Your task to perform on an android device: What's the news in Jamaica? Image 0: 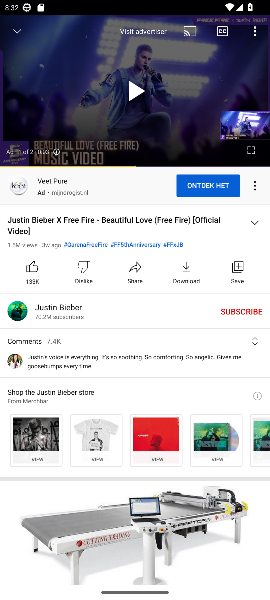
Step 0: press home button
Your task to perform on an android device: What's the news in Jamaica? Image 1: 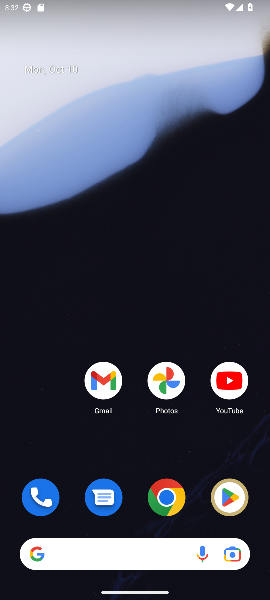
Step 1: drag from (139, 480) to (135, 219)
Your task to perform on an android device: What's the news in Jamaica? Image 2: 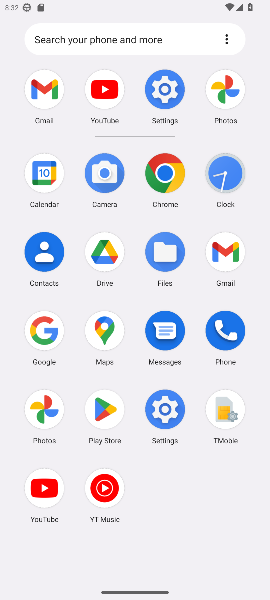
Step 2: click (44, 322)
Your task to perform on an android device: What's the news in Jamaica? Image 3: 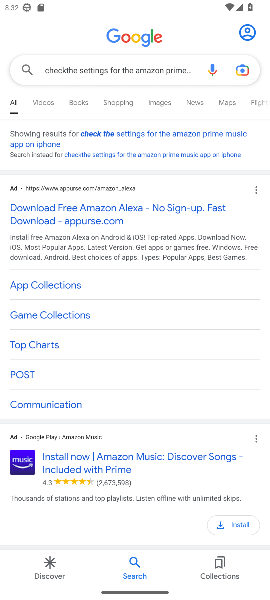
Step 3: click (135, 60)
Your task to perform on an android device: What's the news in Jamaica? Image 4: 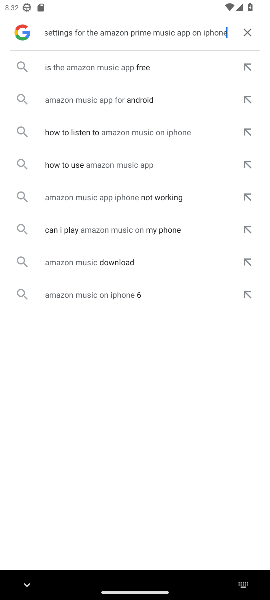
Step 4: click (254, 35)
Your task to perform on an android device: What's the news in Jamaica? Image 5: 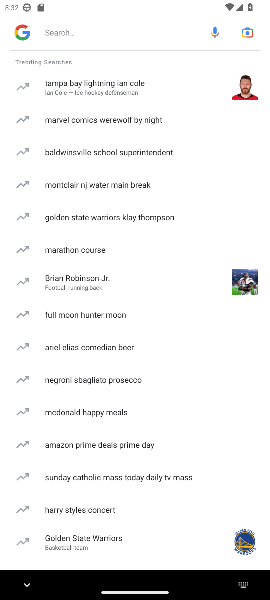
Step 5: click (115, 24)
Your task to perform on an android device: What's the news in Jamaica? Image 6: 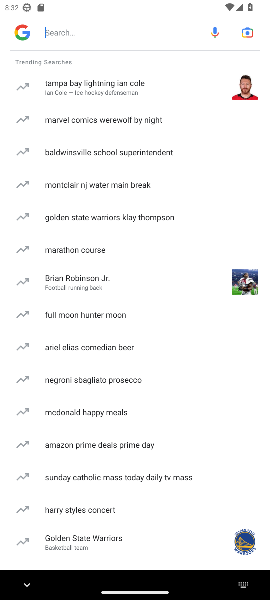
Step 6: type "What's the news in Jamaica "
Your task to perform on an android device: What's the news in Jamaica? Image 7: 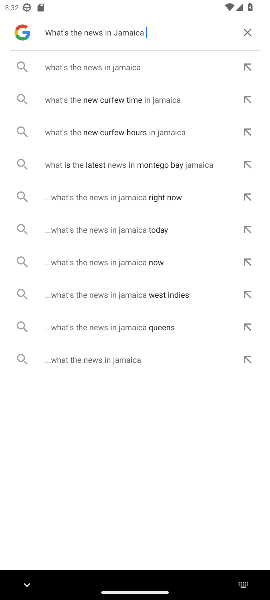
Step 7: click (100, 69)
Your task to perform on an android device: What's the news in Jamaica? Image 8: 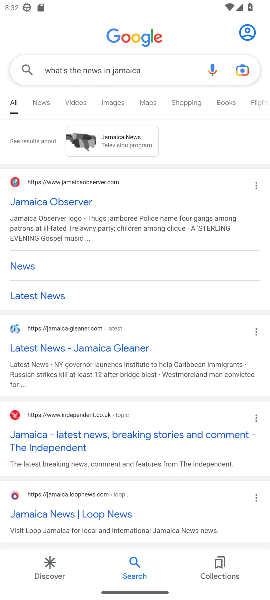
Step 8: click (69, 198)
Your task to perform on an android device: What's the news in Jamaica? Image 9: 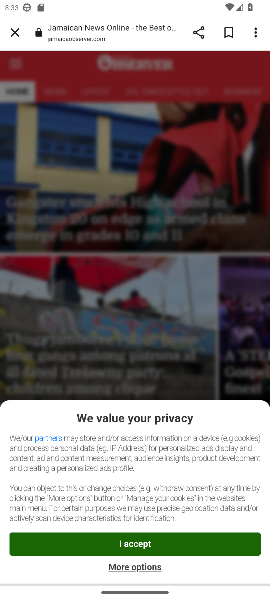
Step 9: click (161, 536)
Your task to perform on an android device: What's the news in Jamaica? Image 10: 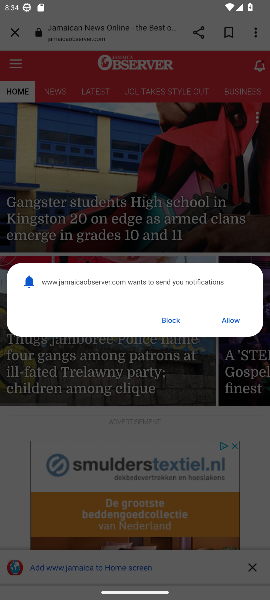
Step 10: click (222, 324)
Your task to perform on an android device: What's the news in Jamaica? Image 11: 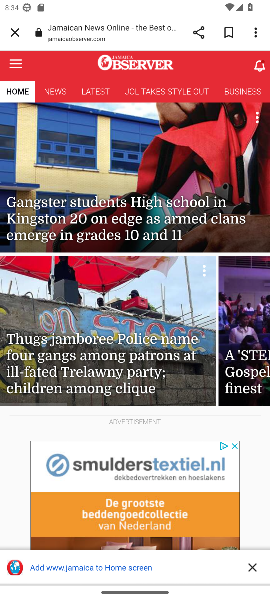
Step 11: click (236, 443)
Your task to perform on an android device: What's the news in Jamaica? Image 12: 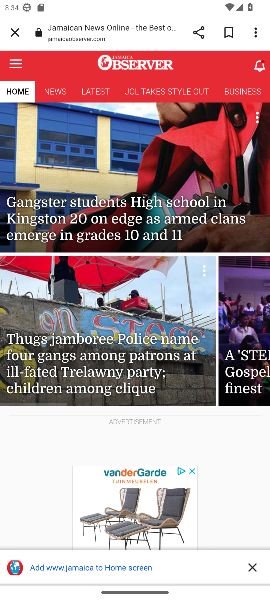
Step 12: click (17, 39)
Your task to perform on an android device: What's the news in Jamaica? Image 13: 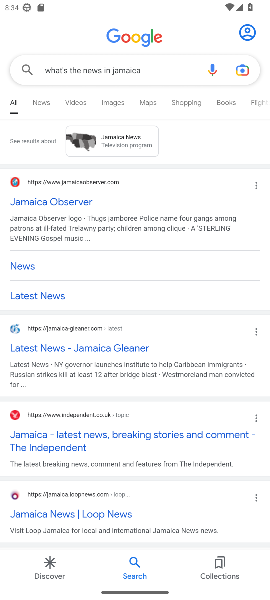
Step 13: click (48, 196)
Your task to perform on an android device: What's the news in Jamaica? Image 14: 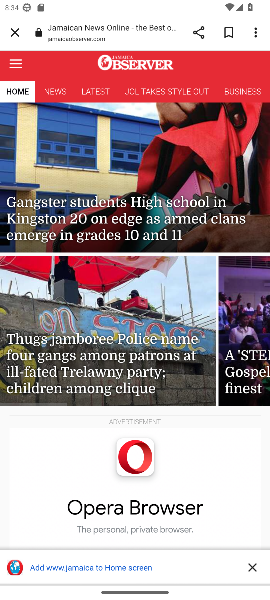
Step 14: click (256, 565)
Your task to perform on an android device: What's the news in Jamaica? Image 15: 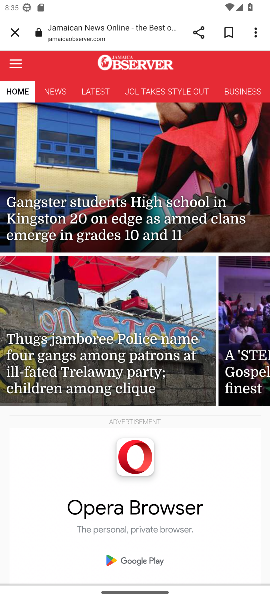
Step 15: press back button
Your task to perform on an android device: What's the news in Jamaica? Image 16: 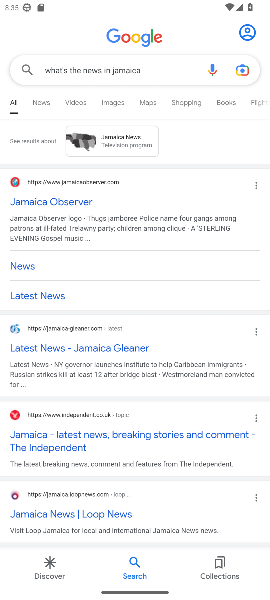
Step 16: click (29, 203)
Your task to perform on an android device: What's the news in Jamaica? Image 17: 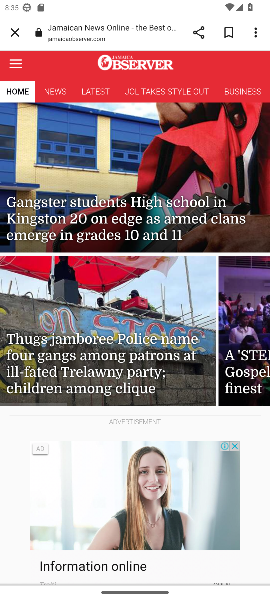
Step 17: task complete